Your task to perform on an android device: Go to Wikipedia Image 0: 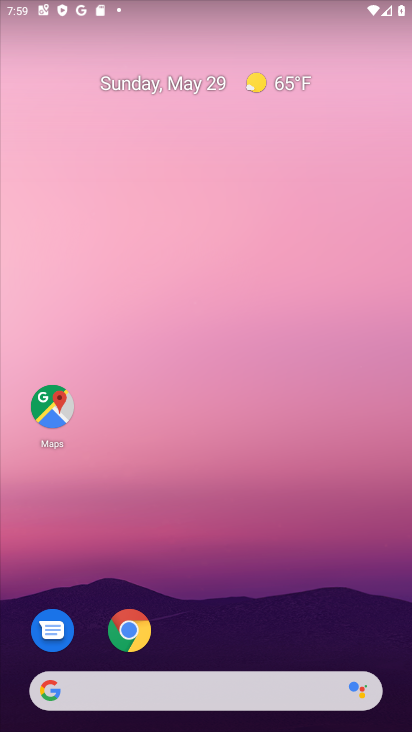
Step 0: click (132, 632)
Your task to perform on an android device: Go to Wikipedia Image 1: 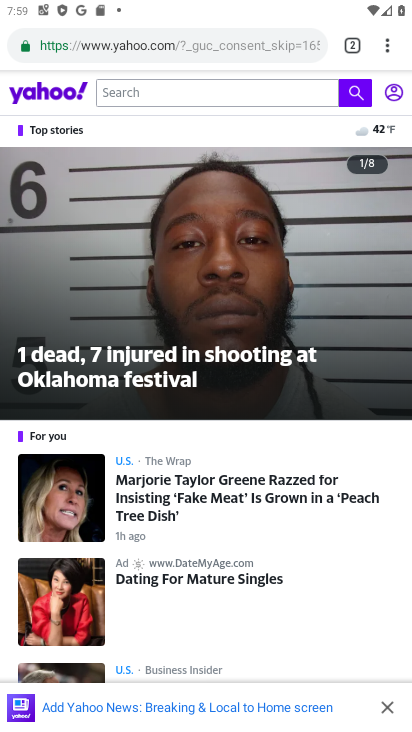
Step 1: click (387, 50)
Your task to perform on an android device: Go to Wikipedia Image 2: 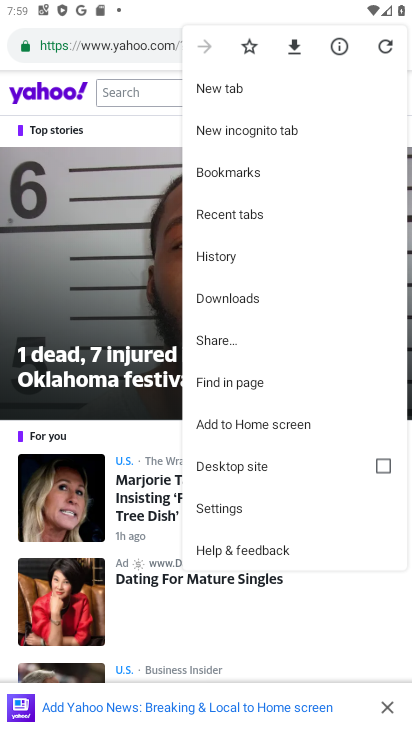
Step 2: click (223, 90)
Your task to perform on an android device: Go to Wikipedia Image 3: 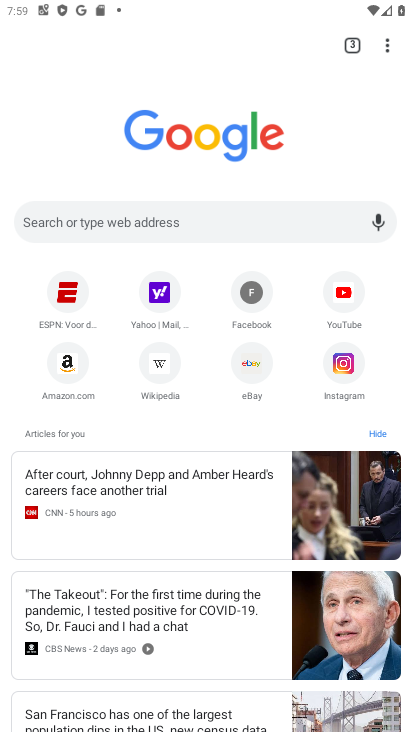
Step 3: click (159, 362)
Your task to perform on an android device: Go to Wikipedia Image 4: 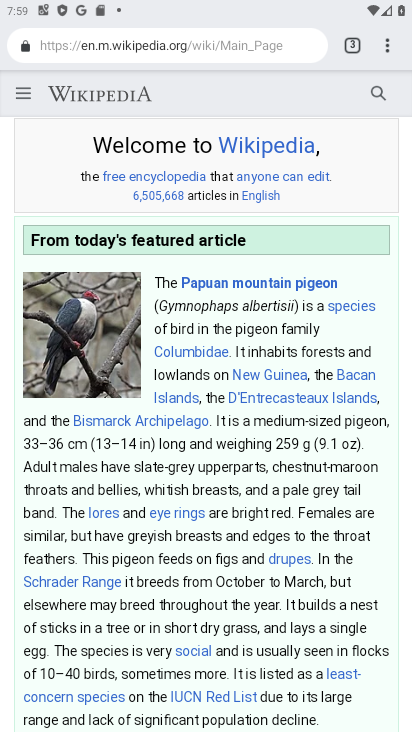
Step 4: task complete